Your task to perform on an android device: check the backup settings in the google photos Image 0: 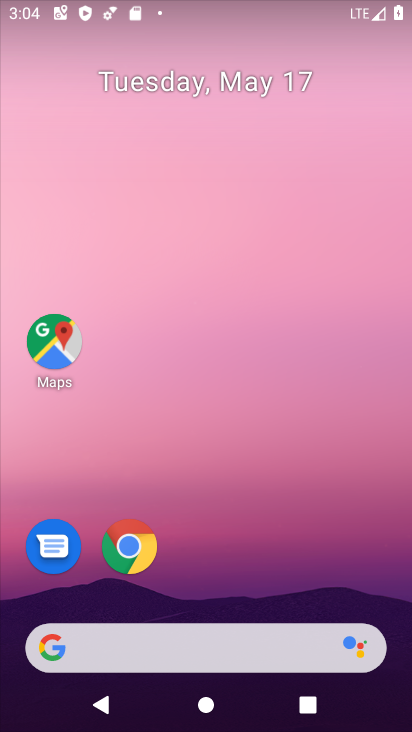
Step 0: press home button
Your task to perform on an android device: check the backup settings in the google photos Image 1: 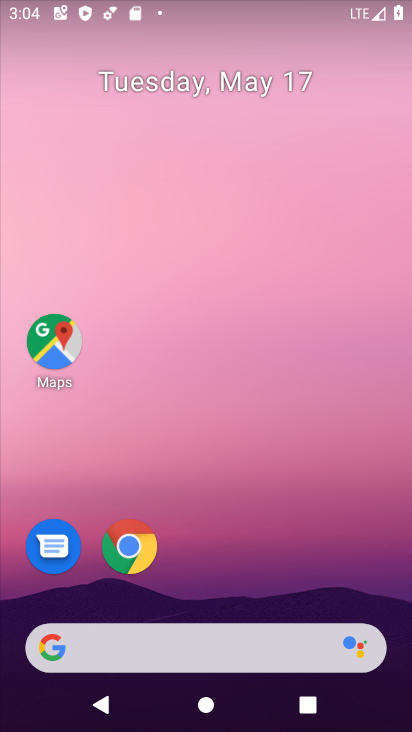
Step 1: drag from (322, 542) to (336, 18)
Your task to perform on an android device: check the backup settings in the google photos Image 2: 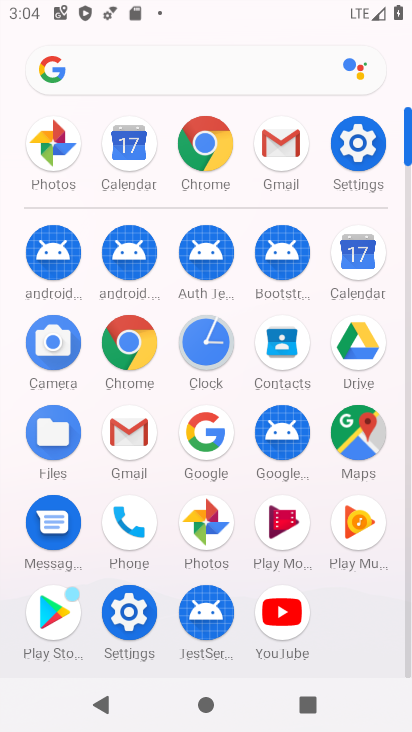
Step 2: click (213, 512)
Your task to perform on an android device: check the backup settings in the google photos Image 3: 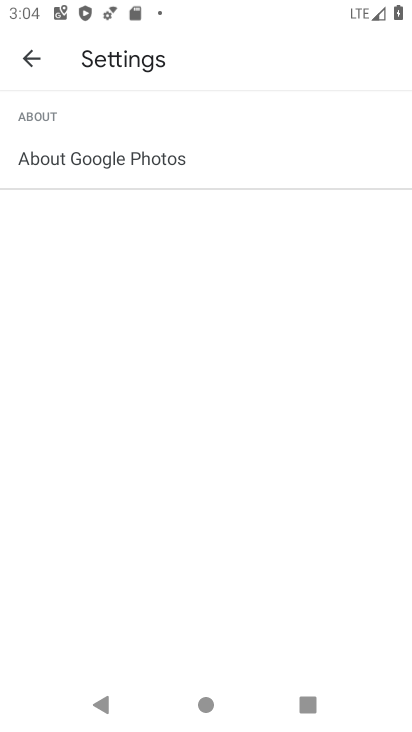
Step 3: click (20, 48)
Your task to perform on an android device: check the backup settings in the google photos Image 4: 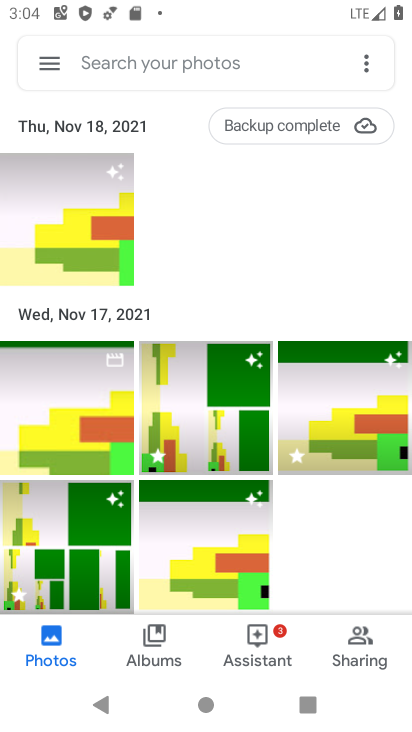
Step 4: click (20, 48)
Your task to perform on an android device: check the backup settings in the google photos Image 5: 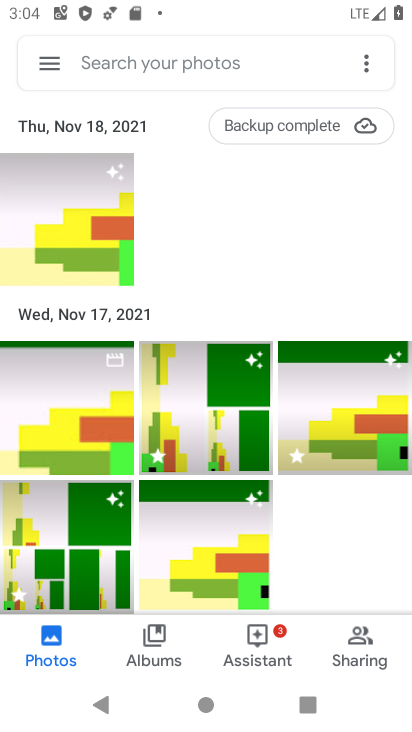
Step 5: click (31, 55)
Your task to perform on an android device: check the backup settings in the google photos Image 6: 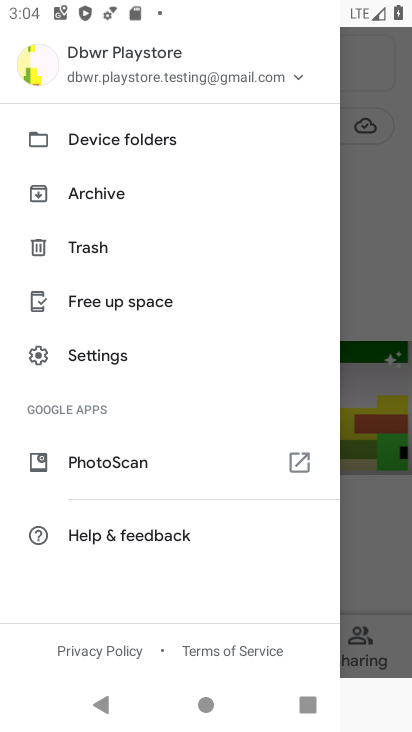
Step 6: click (122, 351)
Your task to perform on an android device: check the backup settings in the google photos Image 7: 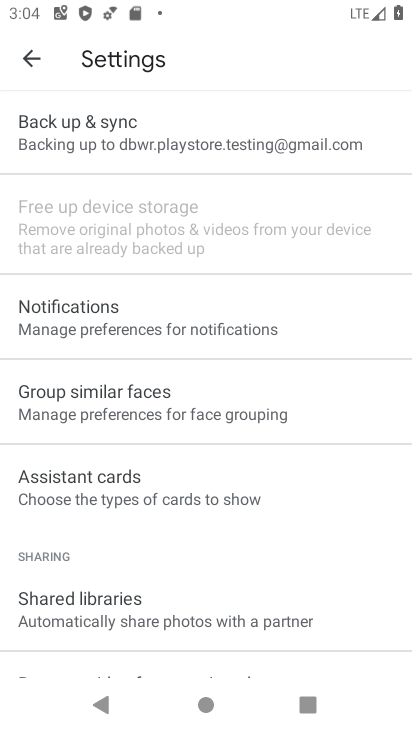
Step 7: click (167, 134)
Your task to perform on an android device: check the backup settings in the google photos Image 8: 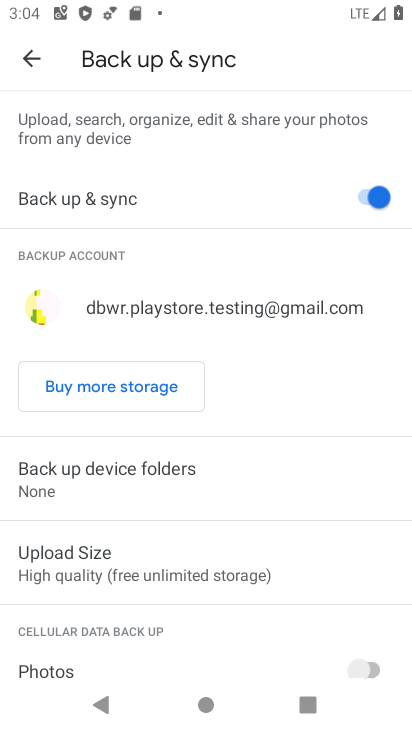
Step 8: task complete